Your task to perform on an android device: turn on priority inbox in the gmail app Image 0: 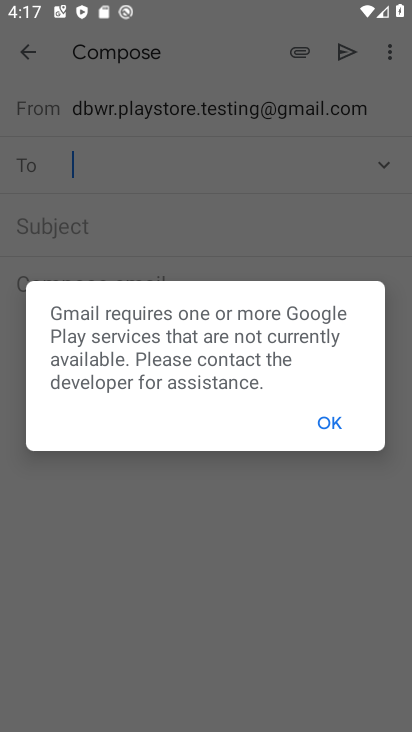
Step 0: click (329, 400)
Your task to perform on an android device: turn on priority inbox in the gmail app Image 1: 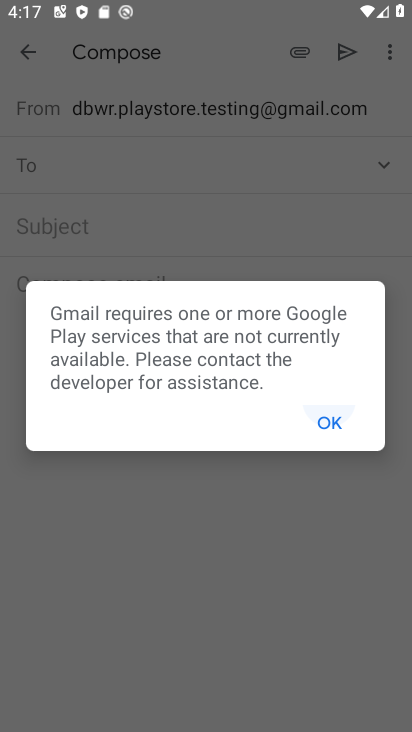
Step 1: click (335, 417)
Your task to perform on an android device: turn on priority inbox in the gmail app Image 2: 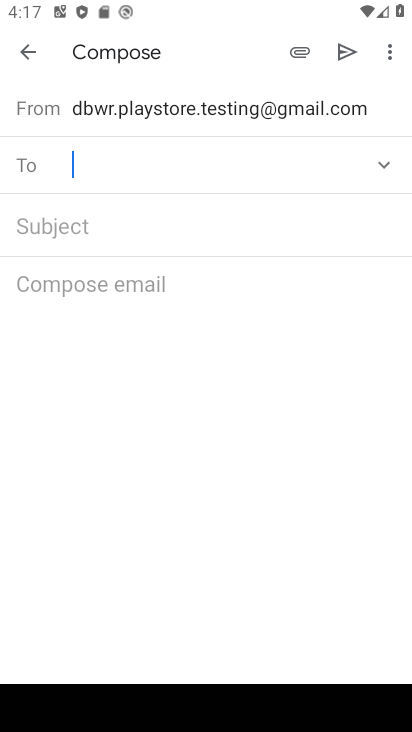
Step 2: click (338, 419)
Your task to perform on an android device: turn on priority inbox in the gmail app Image 3: 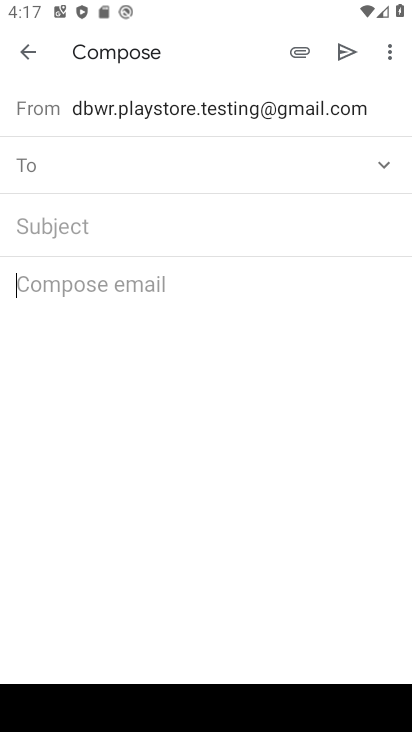
Step 3: click (338, 419)
Your task to perform on an android device: turn on priority inbox in the gmail app Image 4: 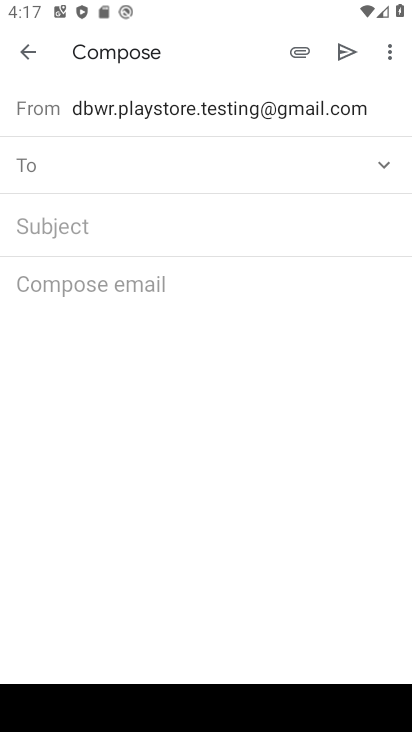
Step 4: click (17, 40)
Your task to perform on an android device: turn on priority inbox in the gmail app Image 5: 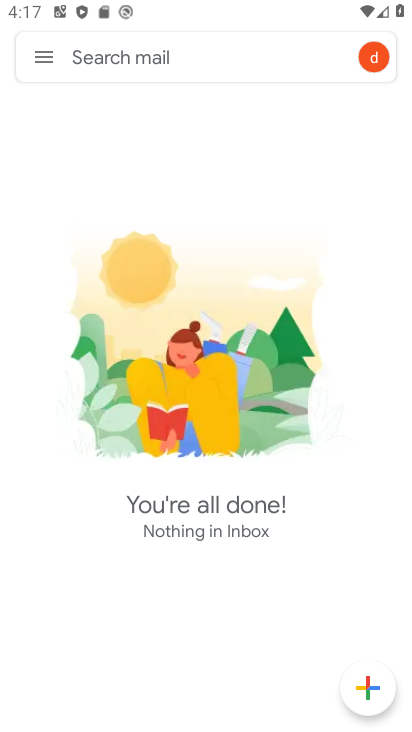
Step 5: press back button
Your task to perform on an android device: turn on priority inbox in the gmail app Image 6: 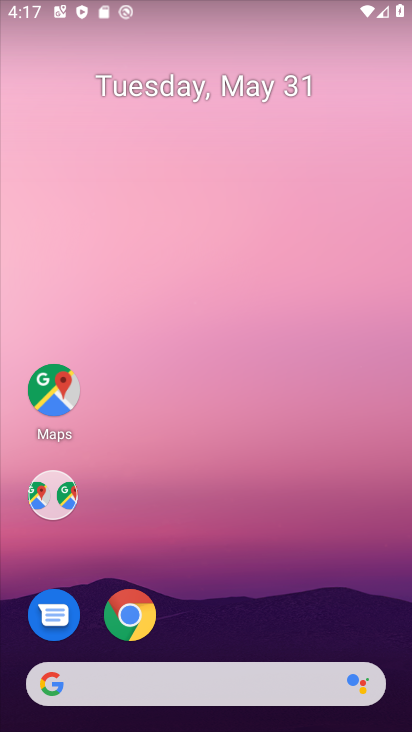
Step 6: drag from (287, 660) to (179, 28)
Your task to perform on an android device: turn on priority inbox in the gmail app Image 7: 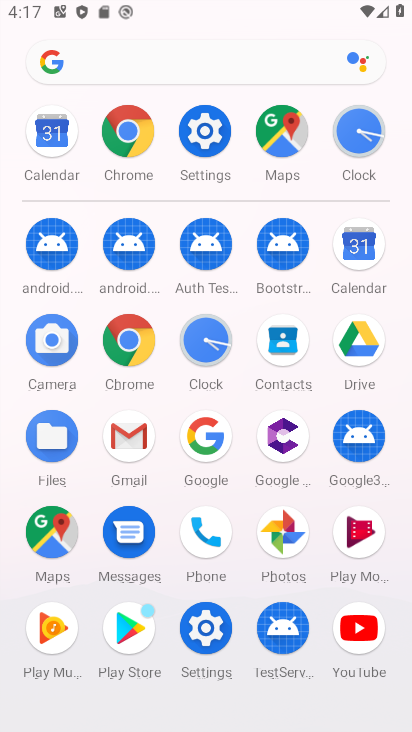
Step 7: click (141, 447)
Your task to perform on an android device: turn on priority inbox in the gmail app Image 8: 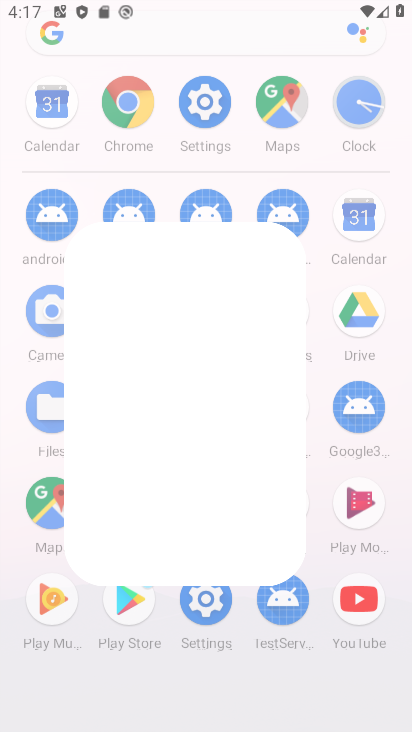
Step 8: click (138, 446)
Your task to perform on an android device: turn on priority inbox in the gmail app Image 9: 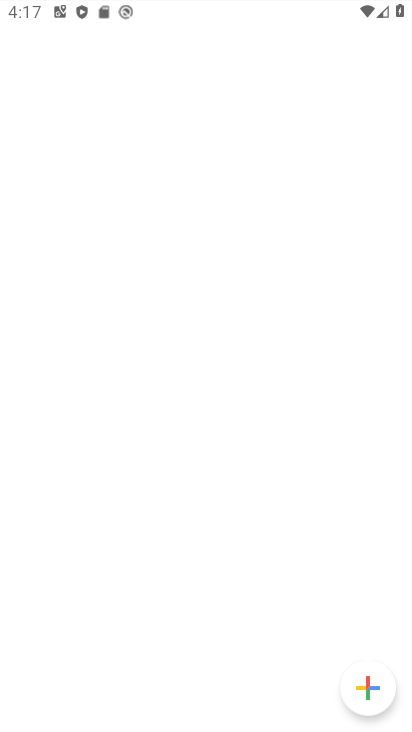
Step 9: click (137, 446)
Your task to perform on an android device: turn on priority inbox in the gmail app Image 10: 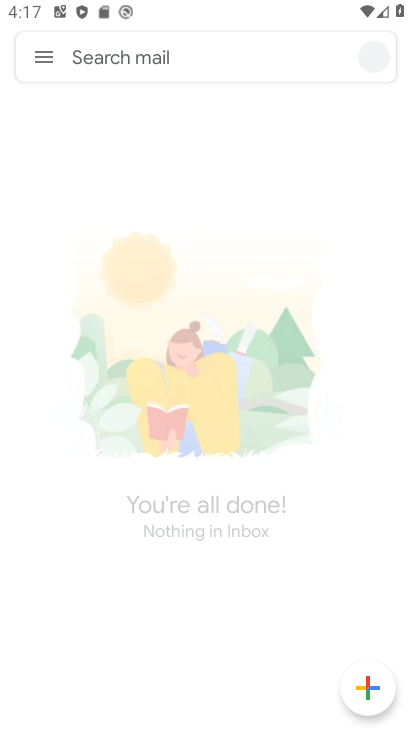
Step 10: click (135, 448)
Your task to perform on an android device: turn on priority inbox in the gmail app Image 11: 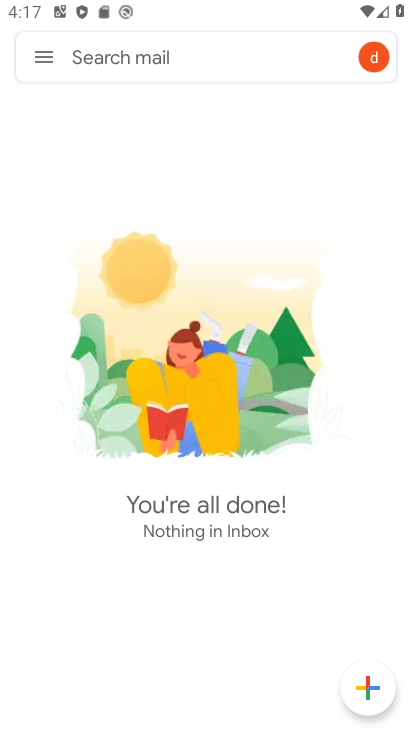
Step 11: click (34, 53)
Your task to perform on an android device: turn on priority inbox in the gmail app Image 12: 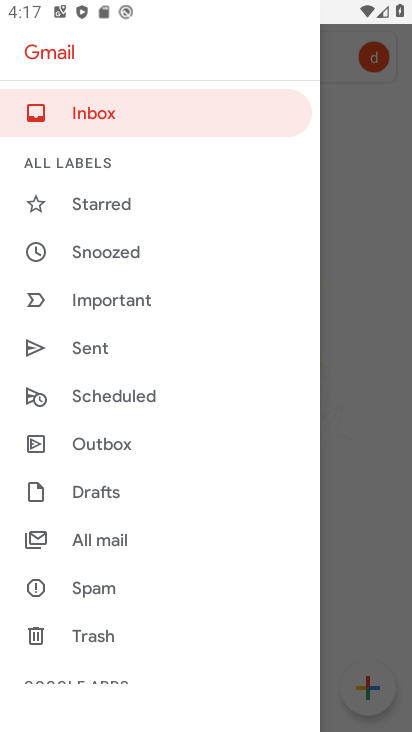
Step 12: drag from (110, 459) to (92, 96)
Your task to perform on an android device: turn on priority inbox in the gmail app Image 13: 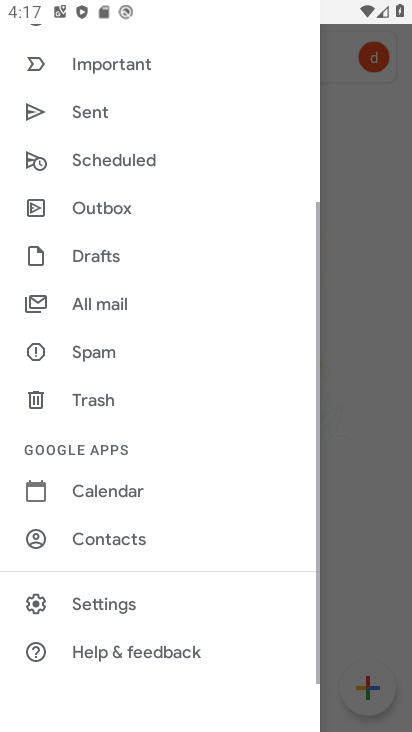
Step 13: drag from (142, 448) to (139, 105)
Your task to perform on an android device: turn on priority inbox in the gmail app Image 14: 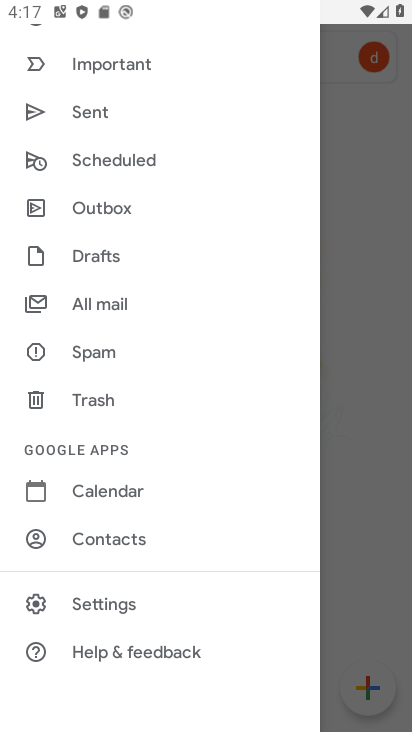
Step 14: click (101, 603)
Your task to perform on an android device: turn on priority inbox in the gmail app Image 15: 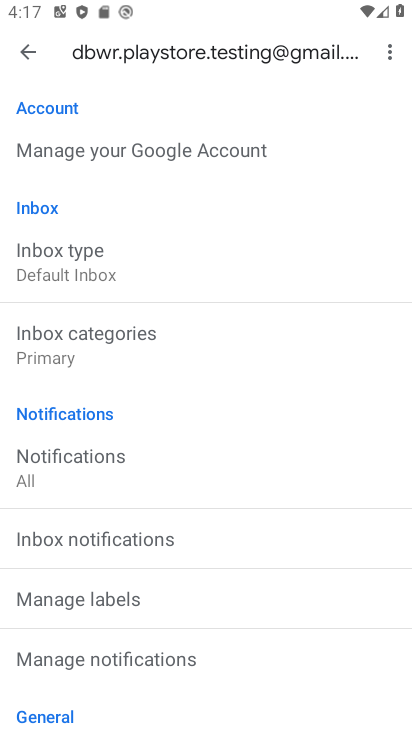
Step 15: click (45, 275)
Your task to perform on an android device: turn on priority inbox in the gmail app Image 16: 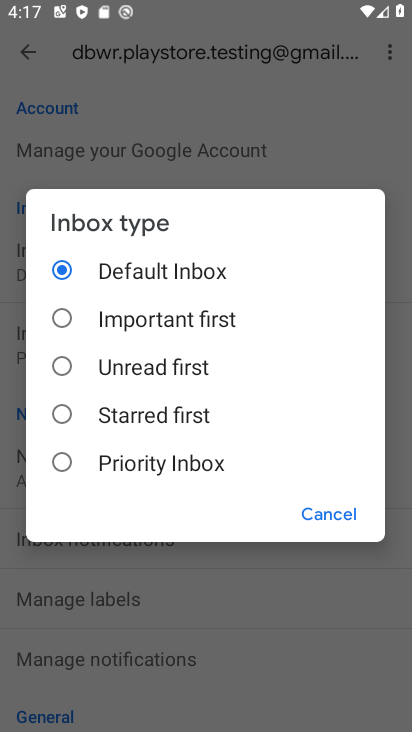
Step 16: click (65, 466)
Your task to perform on an android device: turn on priority inbox in the gmail app Image 17: 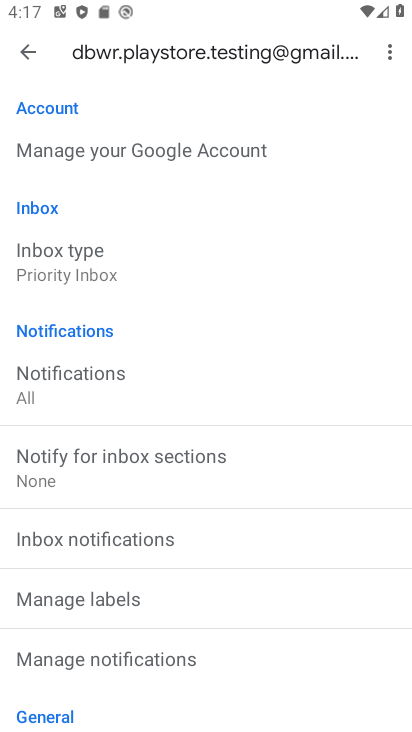
Step 17: task complete